Your task to perform on an android device: Do I have any events tomorrow? Image 0: 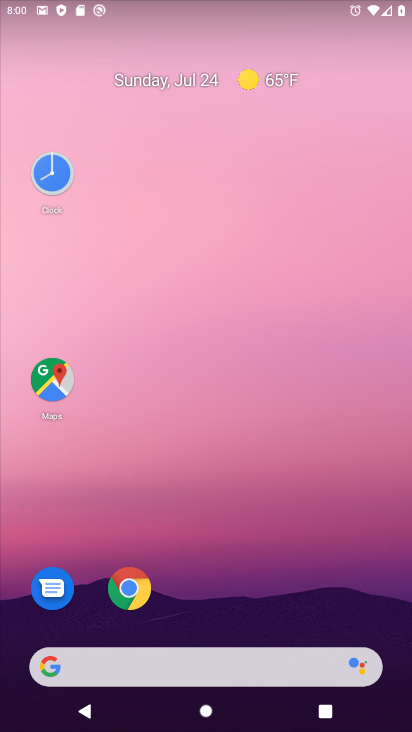
Step 0: drag from (245, 597) to (278, 159)
Your task to perform on an android device: Do I have any events tomorrow? Image 1: 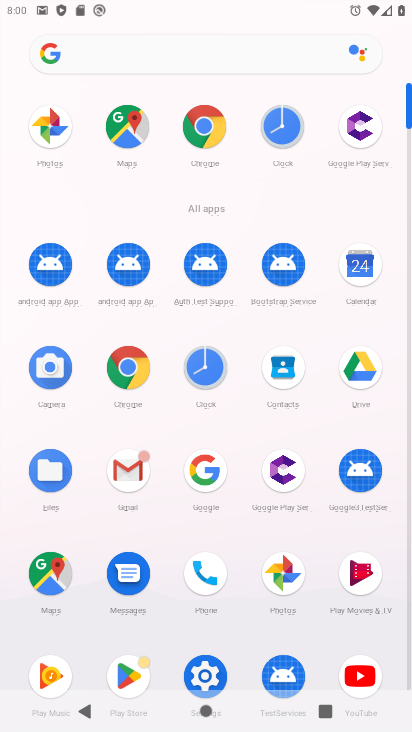
Step 1: drag from (362, 274) to (133, 177)
Your task to perform on an android device: Do I have any events tomorrow? Image 2: 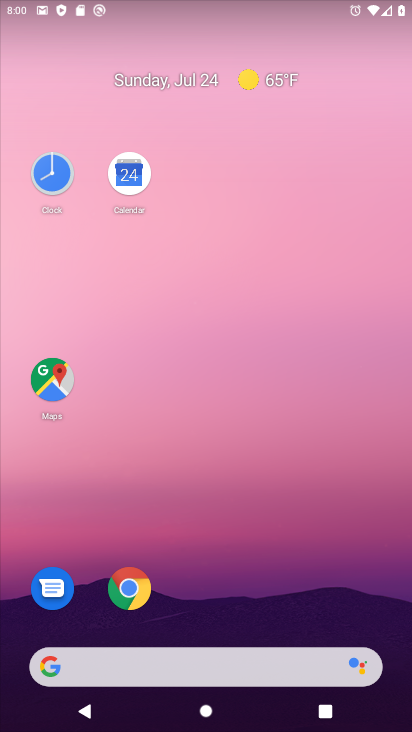
Step 2: click (131, 178)
Your task to perform on an android device: Do I have any events tomorrow? Image 3: 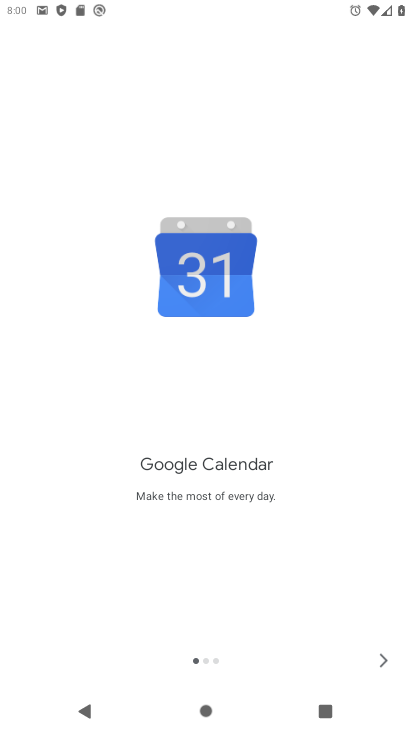
Step 3: click (388, 661)
Your task to perform on an android device: Do I have any events tomorrow? Image 4: 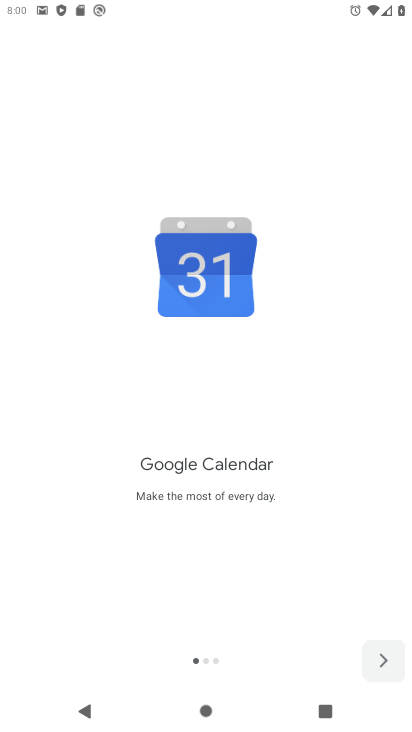
Step 4: click (386, 661)
Your task to perform on an android device: Do I have any events tomorrow? Image 5: 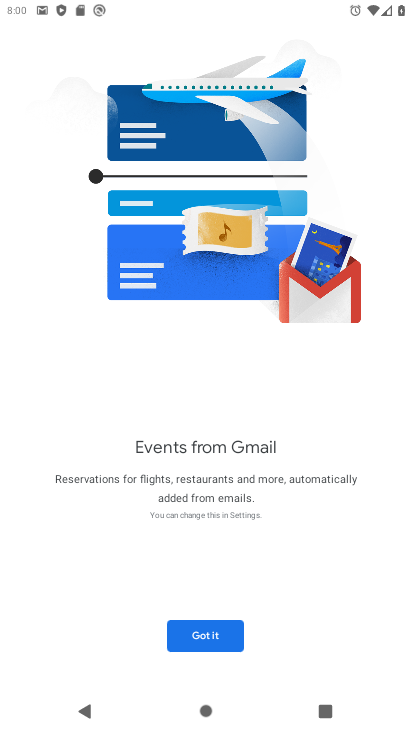
Step 5: click (235, 645)
Your task to perform on an android device: Do I have any events tomorrow? Image 6: 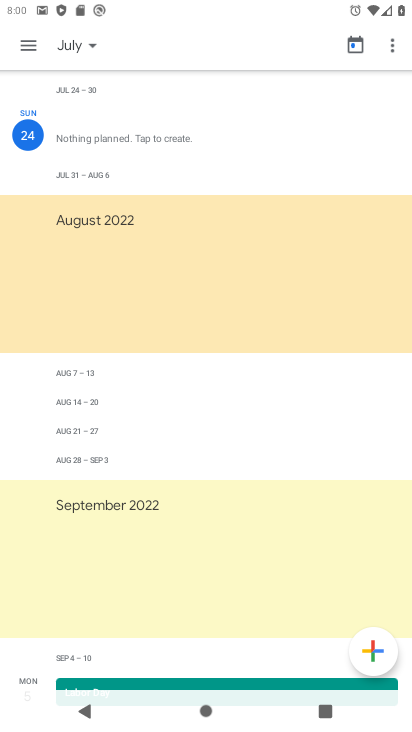
Step 6: click (91, 34)
Your task to perform on an android device: Do I have any events tomorrow? Image 7: 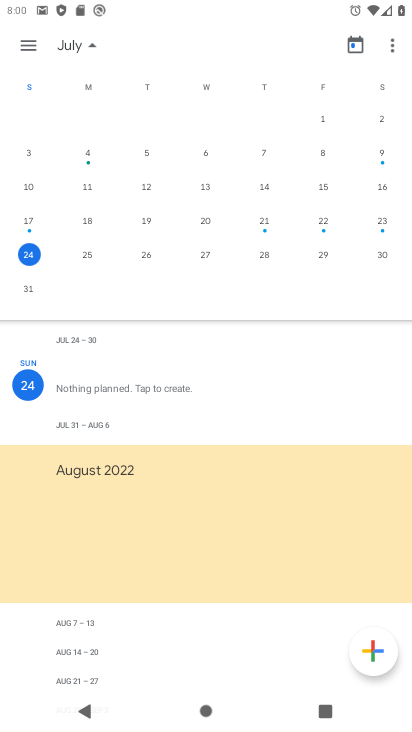
Step 7: click (97, 251)
Your task to perform on an android device: Do I have any events tomorrow? Image 8: 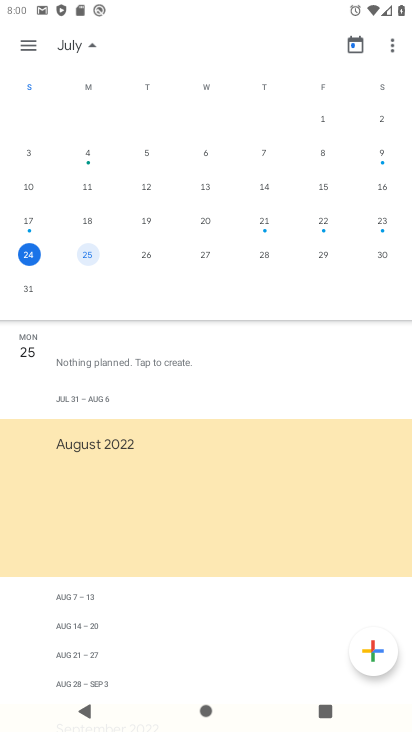
Step 8: task complete